Your task to perform on an android device: read, delete, or share a saved page in the chrome app Image 0: 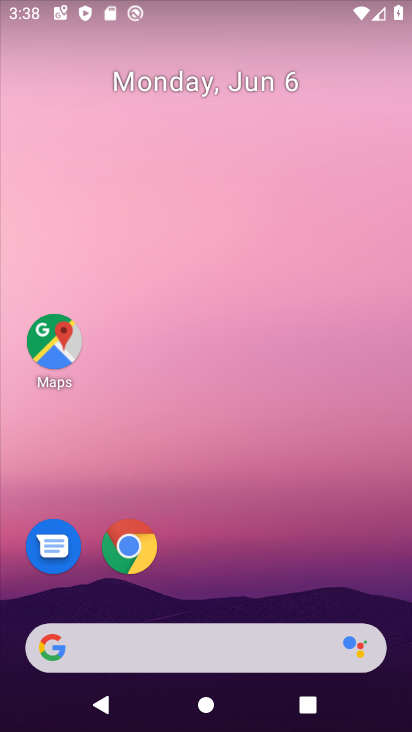
Step 0: click (138, 541)
Your task to perform on an android device: read, delete, or share a saved page in the chrome app Image 1: 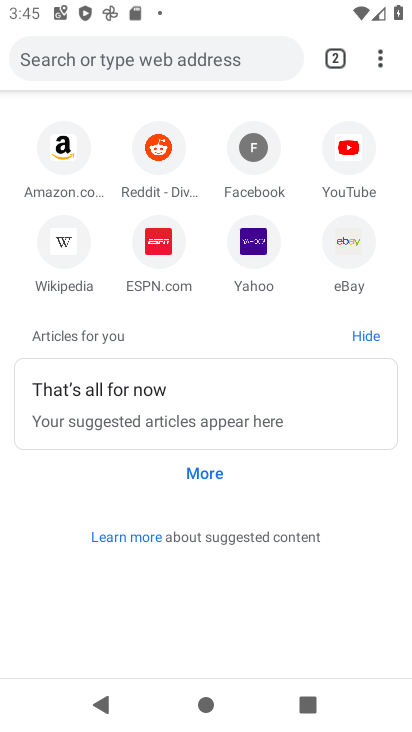
Step 1: task complete